Your task to perform on an android device: Open the stopwatch Image 0: 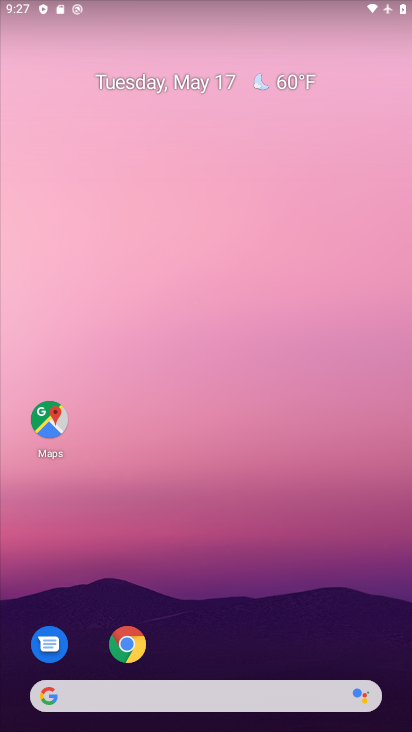
Step 0: drag from (228, 637) to (236, 184)
Your task to perform on an android device: Open the stopwatch Image 1: 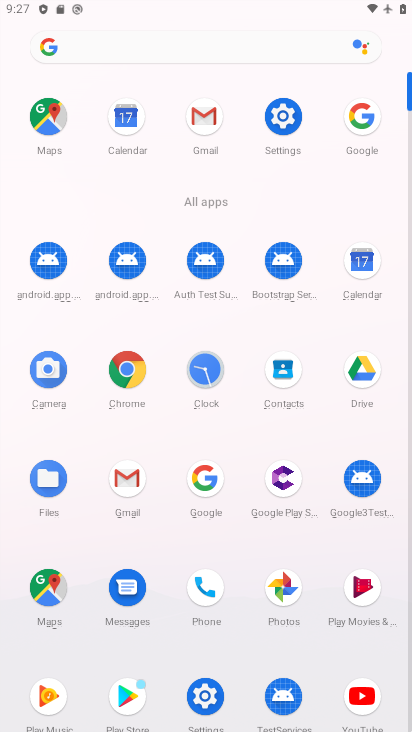
Step 1: click (198, 378)
Your task to perform on an android device: Open the stopwatch Image 2: 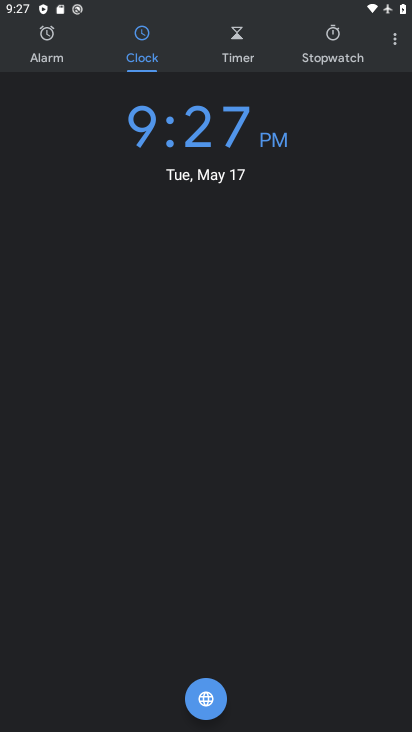
Step 2: click (324, 43)
Your task to perform on an android device: Open the stopwatch Image 3: 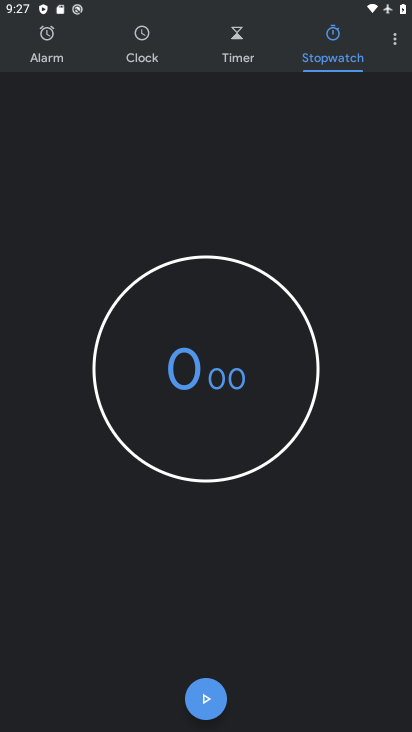
Step 3: task complete